Your task to perform on an android device: check google app version Image 0: 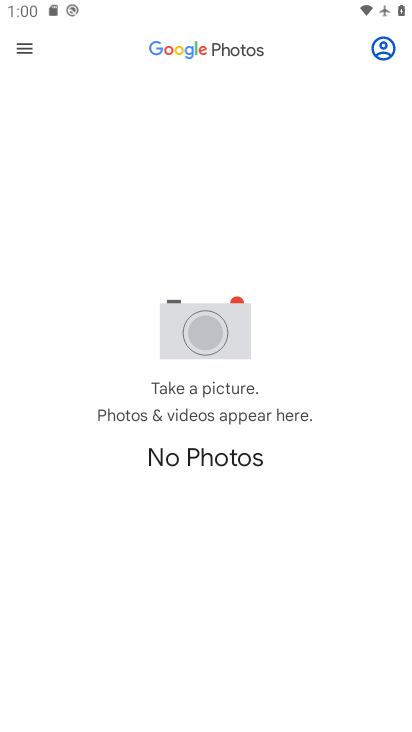
Step 0: press back button
Your task to perform on an android device: check google app version Image 1: 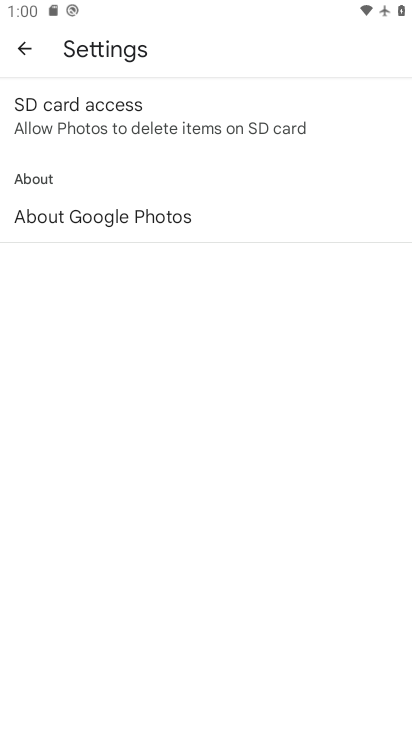
Step 1: click (23, 55)
Your task to perform on an android device: check google app version Image 2: 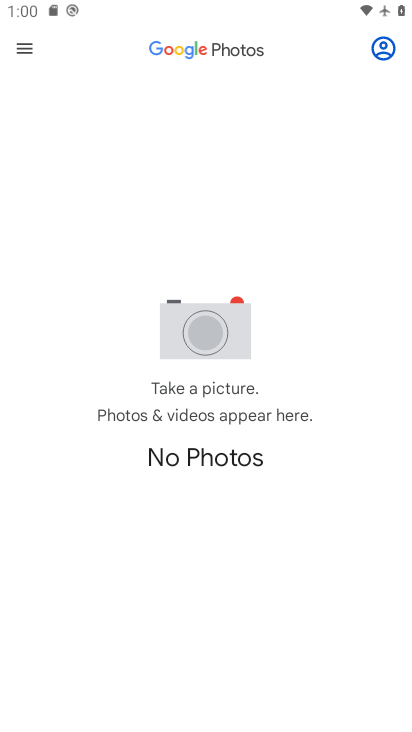
Step 2: press home button
Your task to perform on an android device: check google app version Image 3: 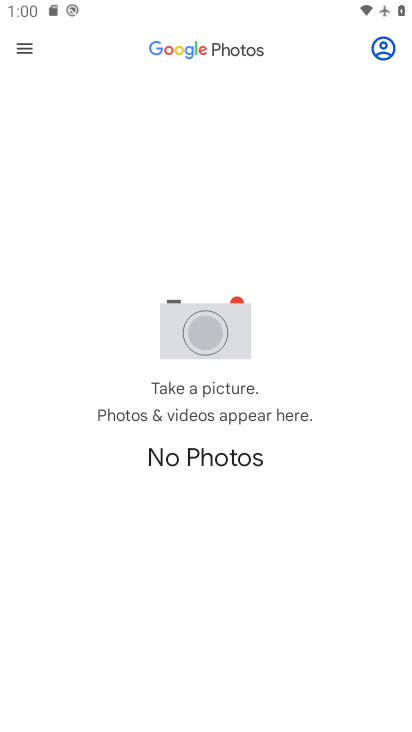
Step 3: press home button
Your task to perform on an android device: check google app version Image 4: 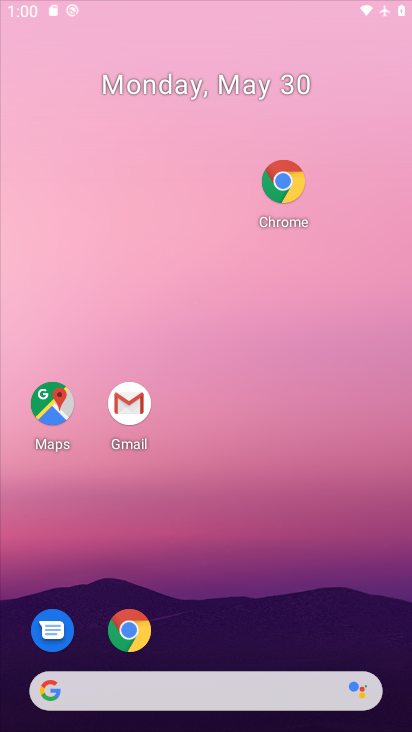
Step 4: press home button
Your task to perform on an android device: check google app version Image 5: 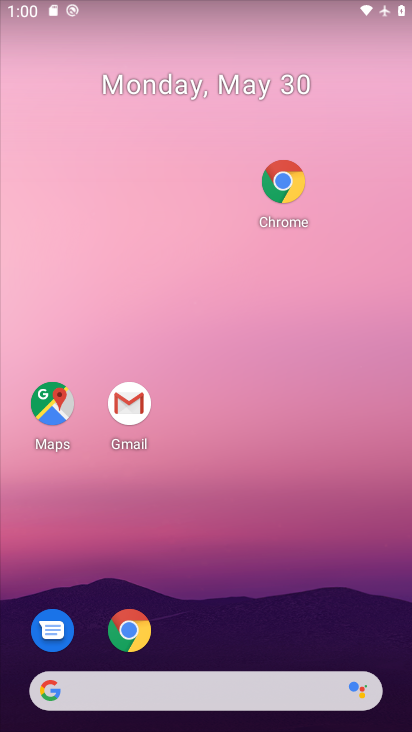
Step 5: drag from (231, 615) to (130, 25)
Your task to perform on an android device: check google app version Image 6: 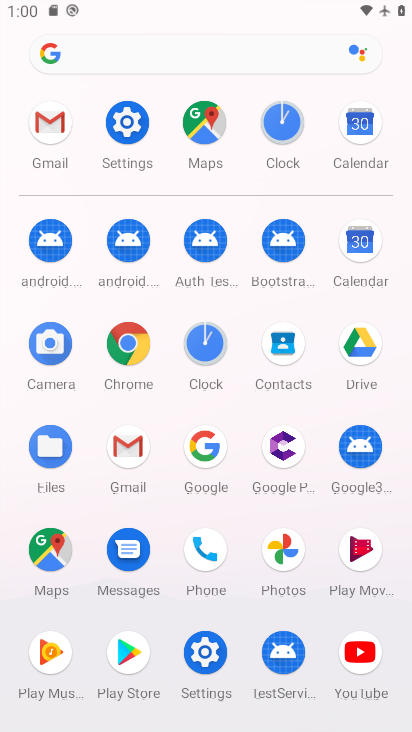
Step 6: drag from (231, 598) to (62, 24)
Your task to perform on an android device: check google app version Image 7: 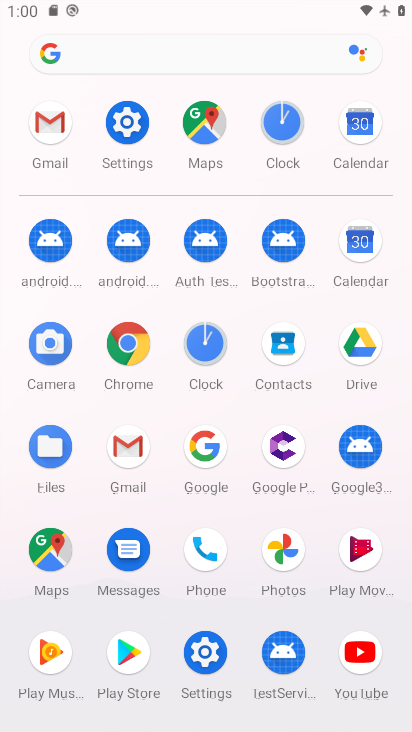
Step 7: click (200, 460)
Your task to perform on an android device: check google app version Image 8: 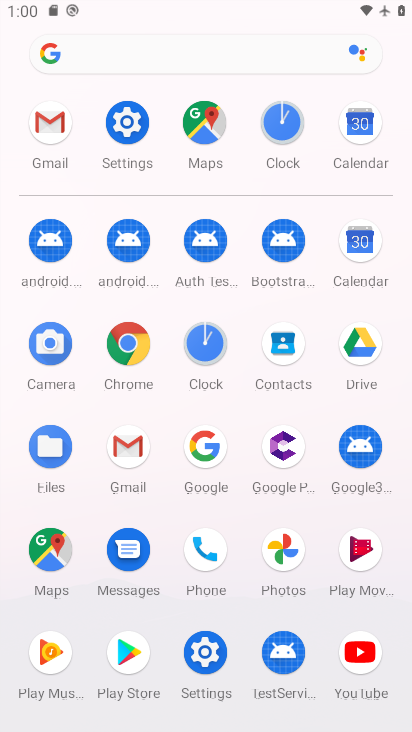
Step 8: click (204, 447)
Your task to perform on an android device: check google app version Image 9: 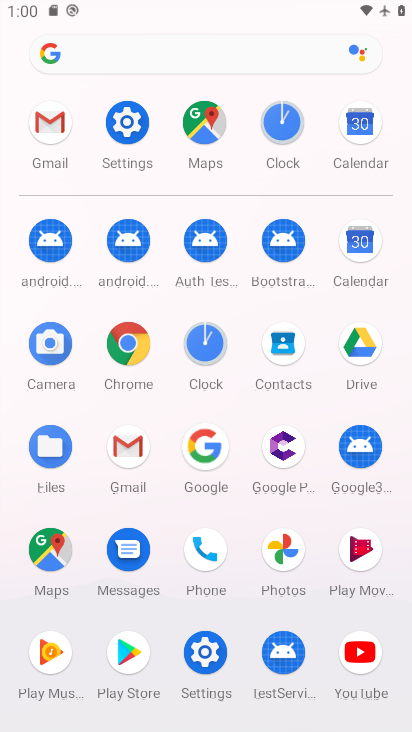
Step 9: click (204, 447)
Your task to perform on an android device: check google app version Image 10: 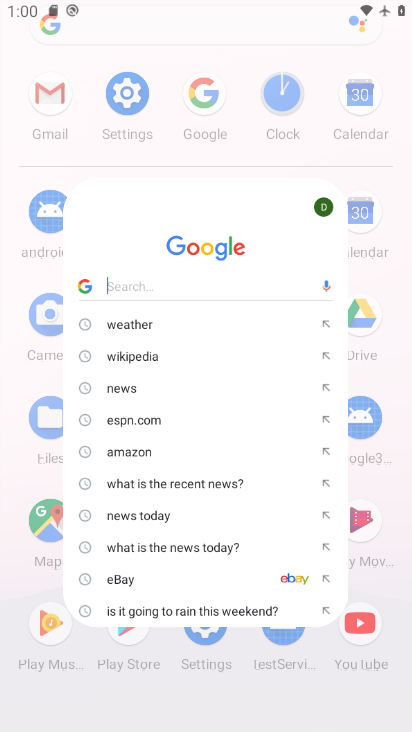
Step 10: click (204, 447)
Your task to perform on an android device: check google app version Image 11: 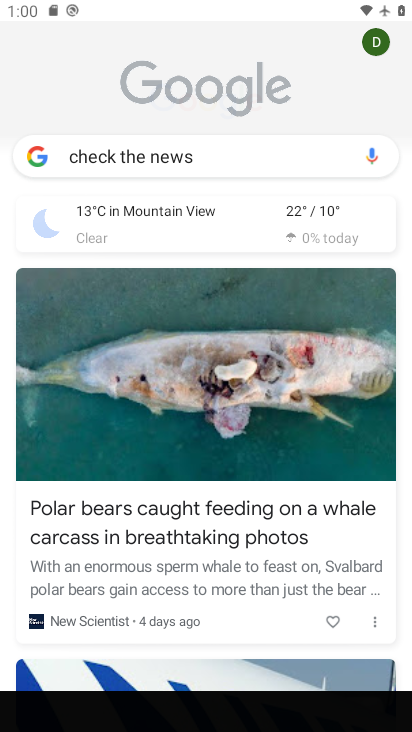
Step 11: click (204, 447)
Your task to perform on an android device: check google app version Image 12: 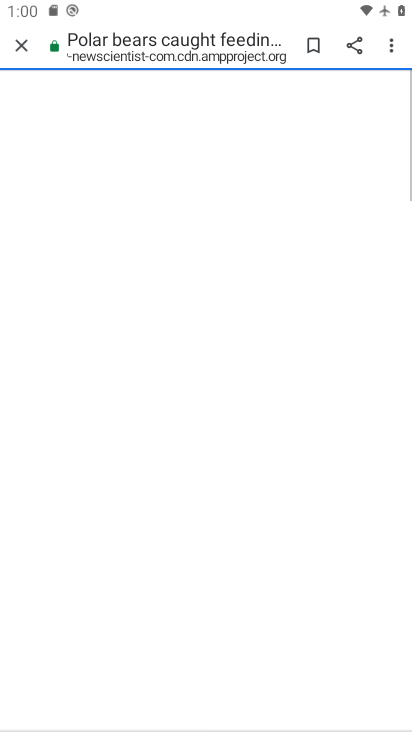
Step 12: press home button
Your task to perform on an android device: check google app version Image 13: 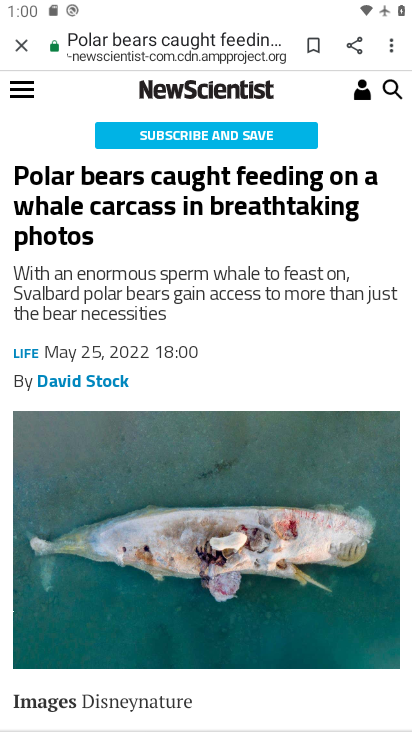
Step 13: press home button
Your task to perform on an android device: check google app version Image 14: 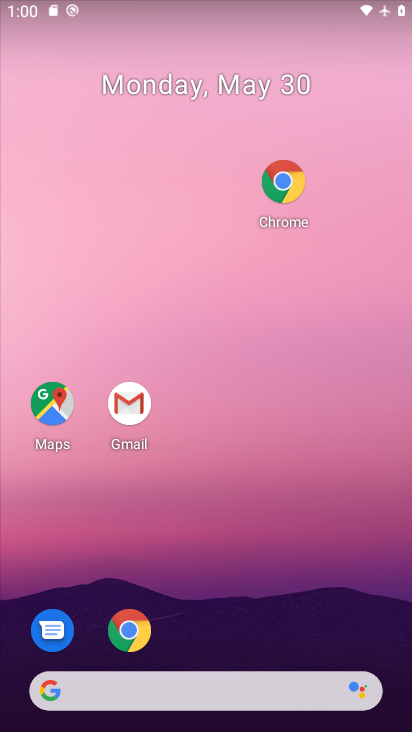
Step 14: press back button
Your task to perform on an android device: check google app version Image 15: 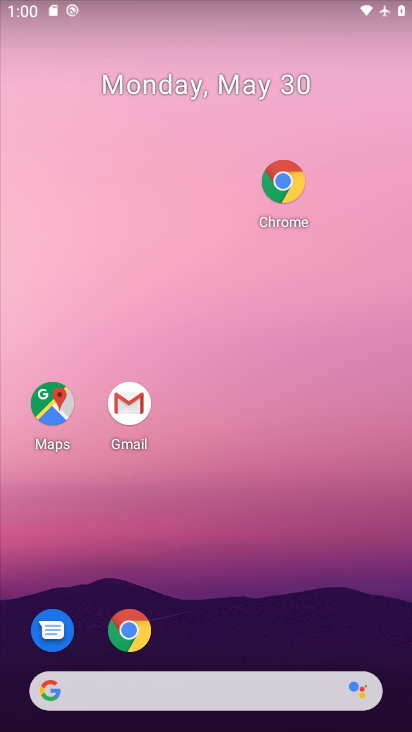
Step 15: press home button
Your task to perform on an android device: check google app version Image 16: 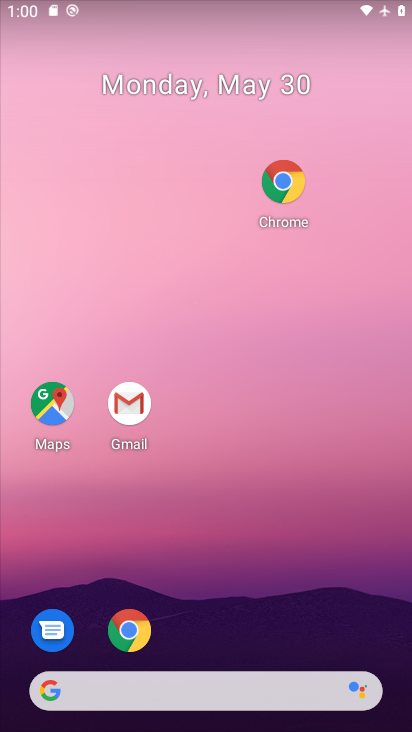
Step 16: press back button
Your task to perform on an android device: check google app version Image 17: 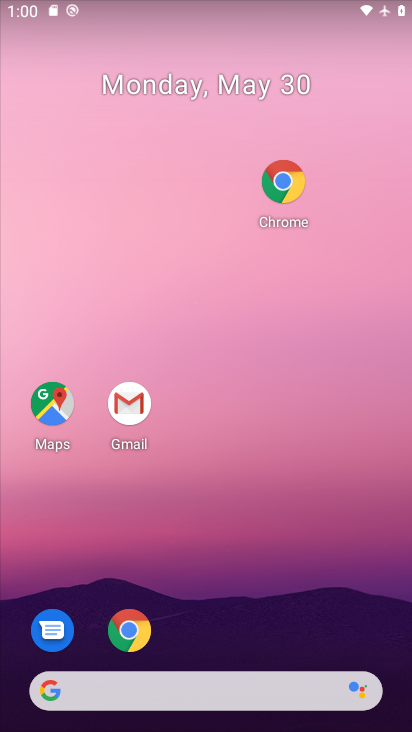
Step 17: press back button
Your task to perform on an android device: check google app version Image 18: 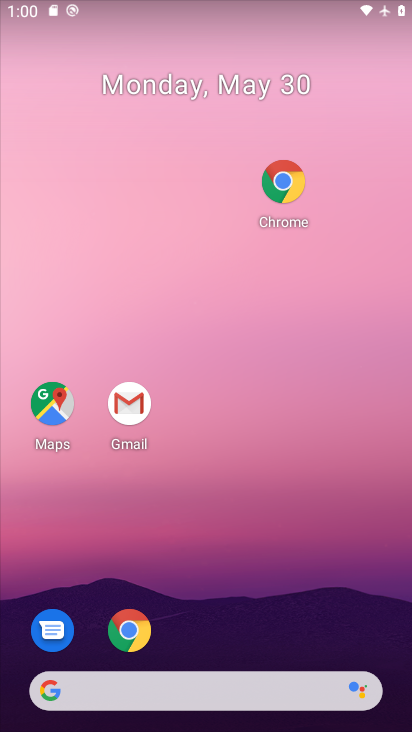
Step 18: click (70, 49)
Your task to perform on an android device: check google app version Image 19: 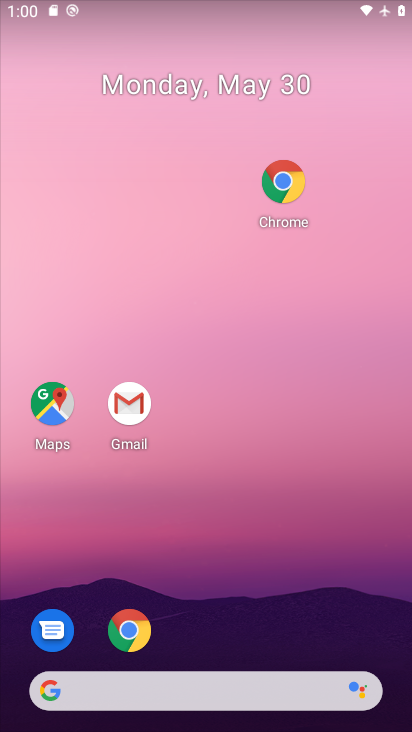
Step 19: drag from (162, 435) to (177, 26)
Your task to perform on an android device: check google app version Image 20: 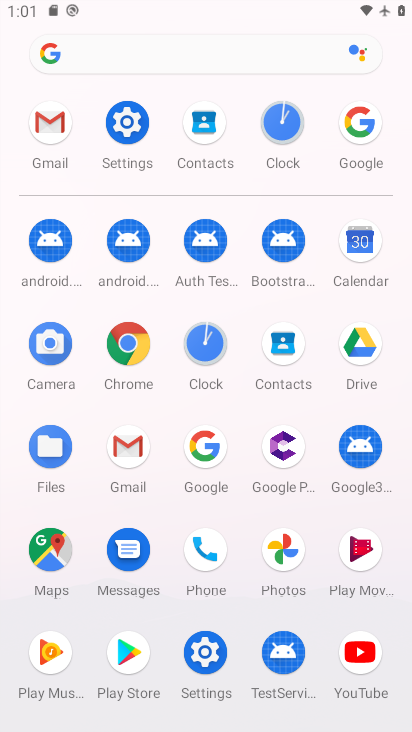
Step 20: drag from (167, 9) to (205, 8)
Your task to perform on an android device: check google app version Image 21: 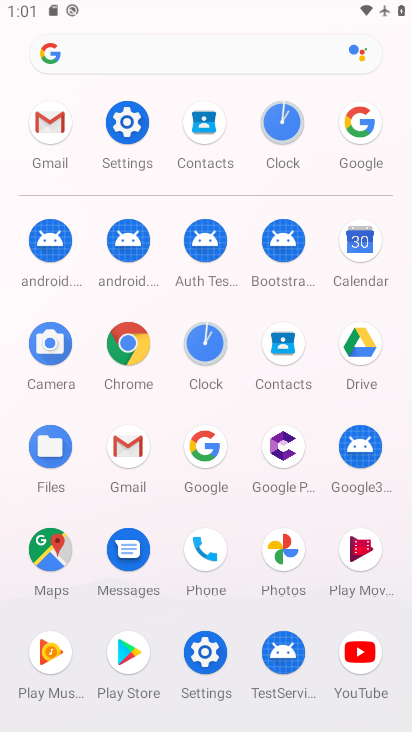
Step 21: drag from (196, 6) to (82, 11)
Your task to perform on an android device: check google app version Image 22: 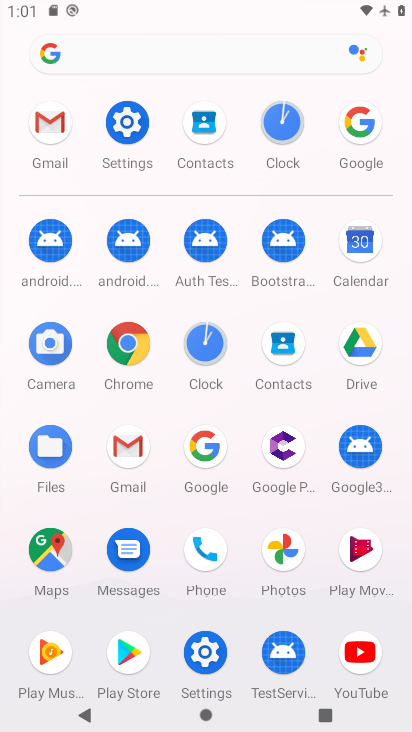
Step 22: click (171, 31)
Your task to perform on an android device: check google app version Image 23: 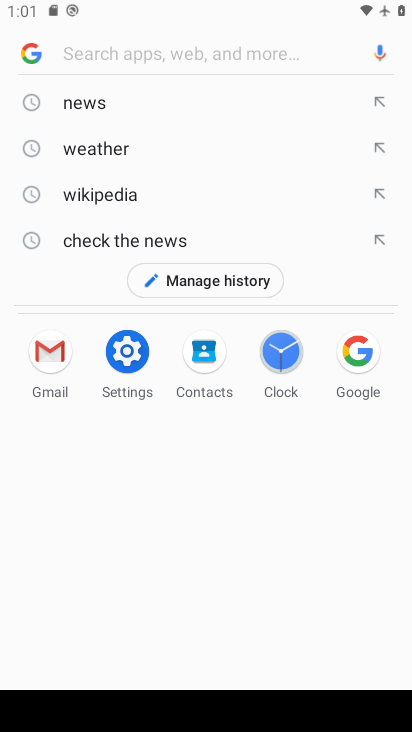
Step 23: click (316, 562)
Your task to perform on an android device: check google app version Image 24: 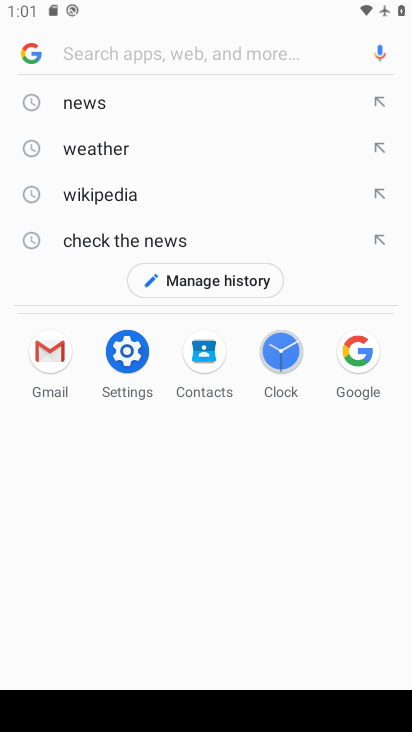
Step 24: click (205, 448)
Your task to perform on an android device: check google app version Image 25: 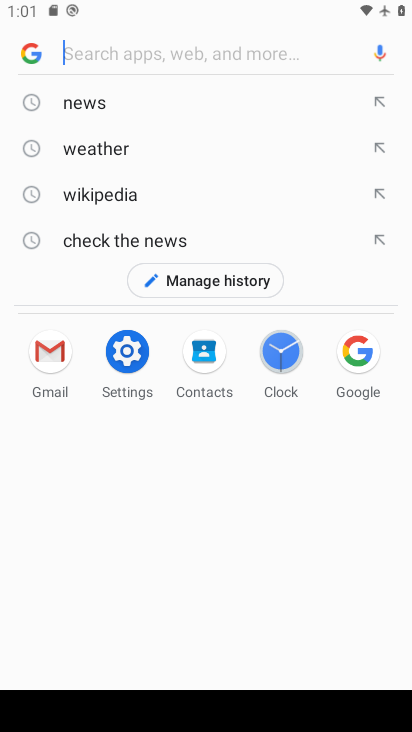
Step 25: click (205, 449)
Your task to perform on an android device: check google app version Image 26: 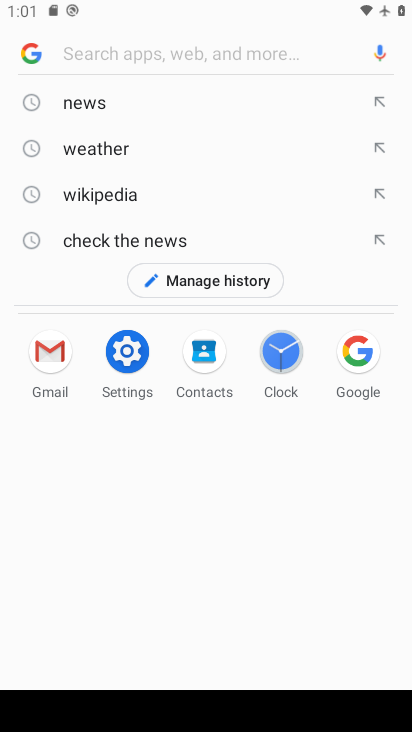
Step 26: click (205, 449)
Your task to perform on an android device: check google app version Image 27: 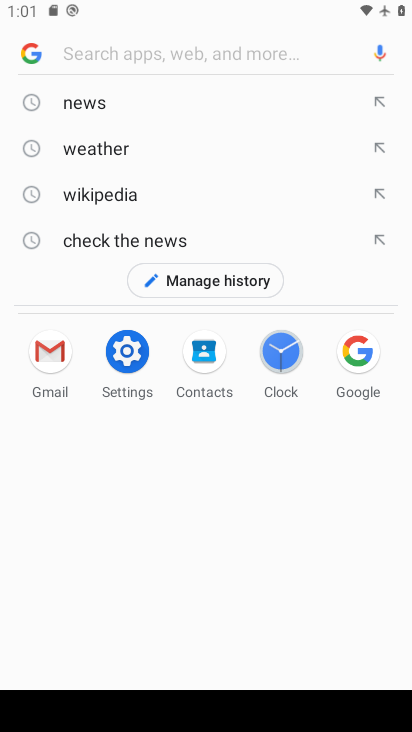
Step 27: click (371, 355)
Your task to perform on an android device: check google app version Image 28: 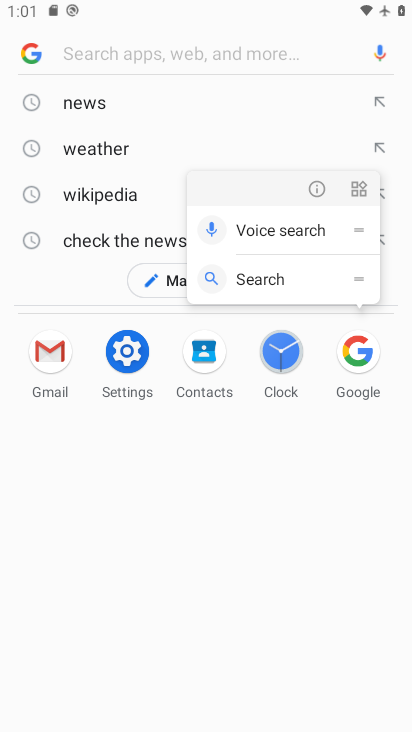
Step 28: click (364, 363)
Your task to perform on an android device: check google app version Image 29: 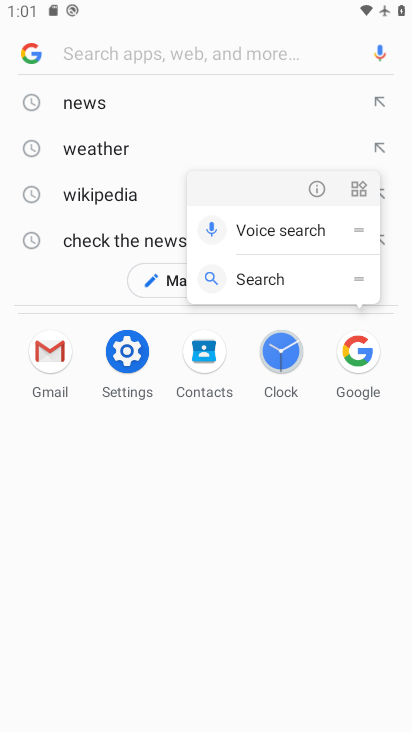
Step 29: click (364, 363)
Your task to perform on an android device: check google app version Image 30: 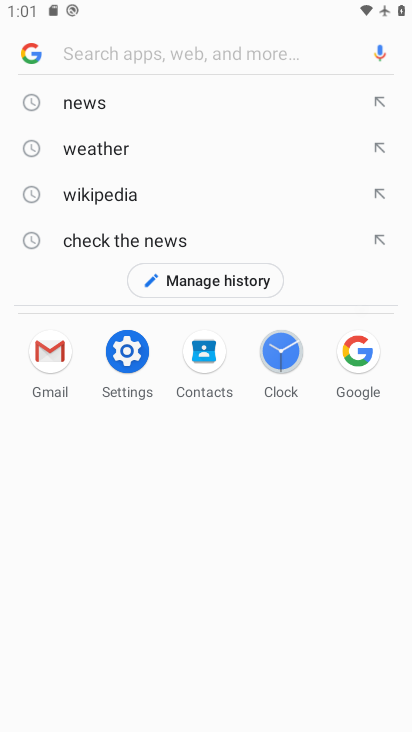
Step 30: click (364, 363)
Your task to perform on an android device: check google app version Image 31: 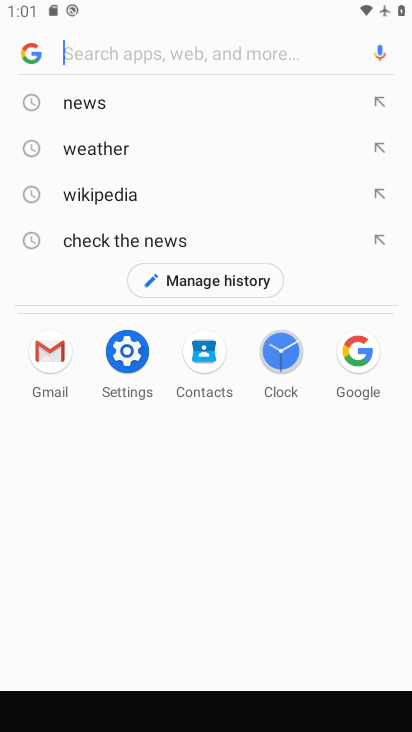
Step 31: click (364, 363)
Your task to perform on an android device: check google app version Image 32: 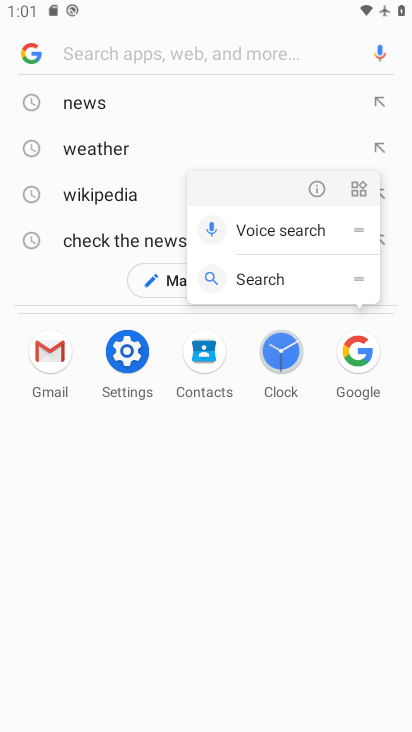
Step 32: click (361, 363)
Your task to perform on an android device: check google app version Image 33: 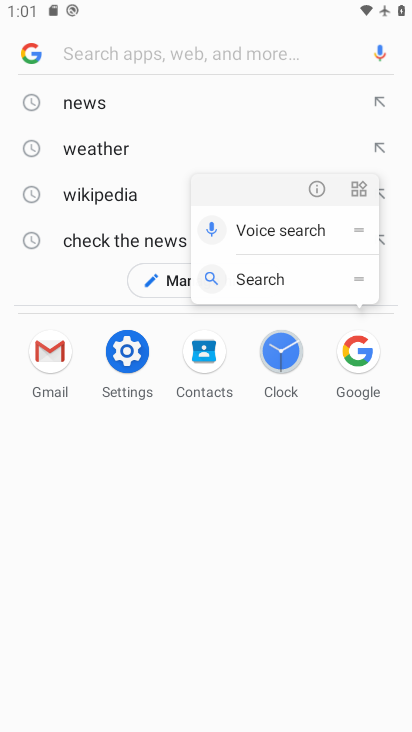
Step 33: click (361, 363)
Your task to perform on an android device: check google app version Image 34: 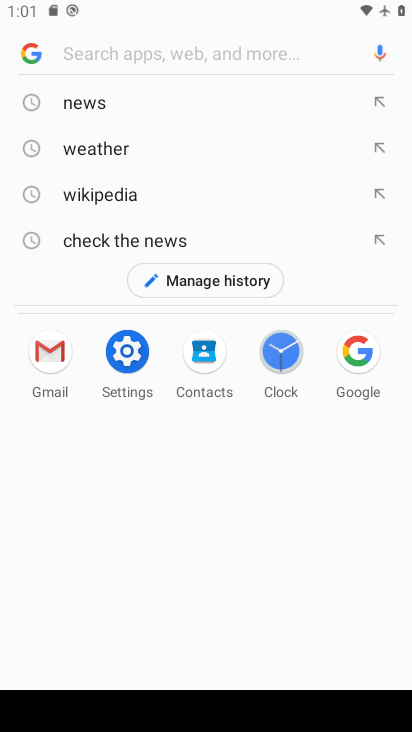
Step 34: click (360, 364)
Your task to perform on an android device: check google app version Image 35: 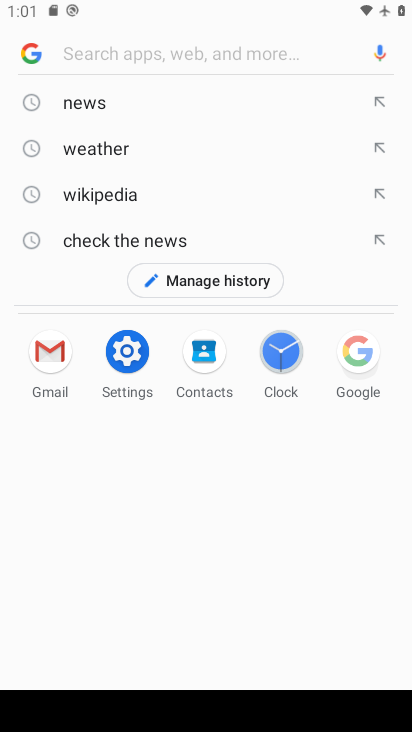
Step 35: click (354, 368)
Your task to perform on an android device: check google app version Image 36: 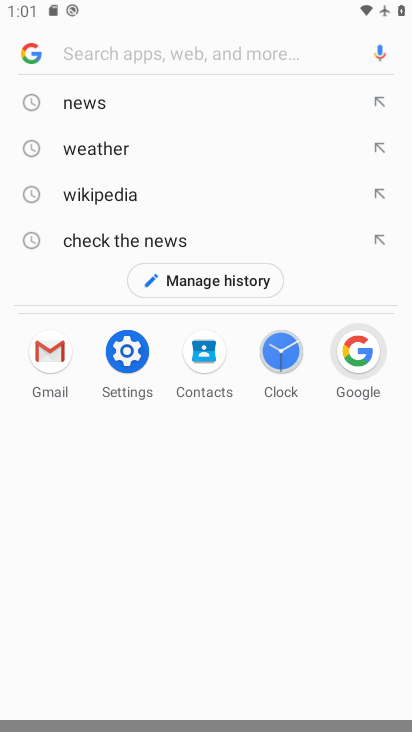
Step 36: click (354, 368)
Your task to perform on an android device: check google app version Image 37: 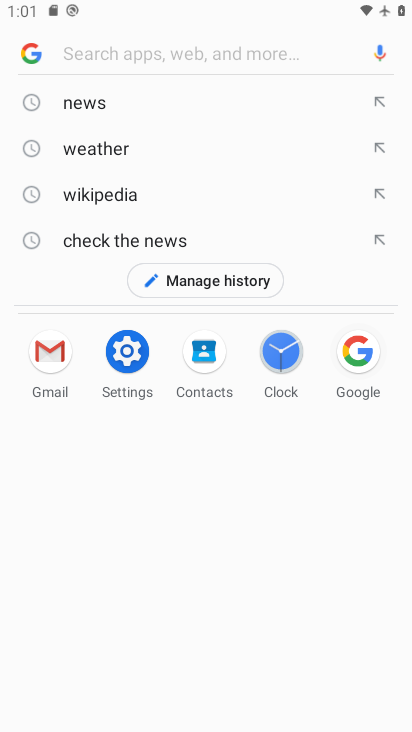
Step 37: click (354, 368)
Your task to perform on an android device: check google app version Image 38: 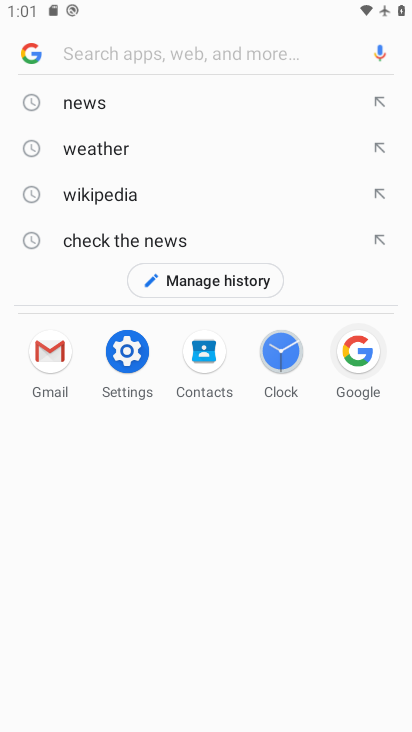
Step 38: click (354, 364)
Your task to perform on an android device: check google app version Image 39: 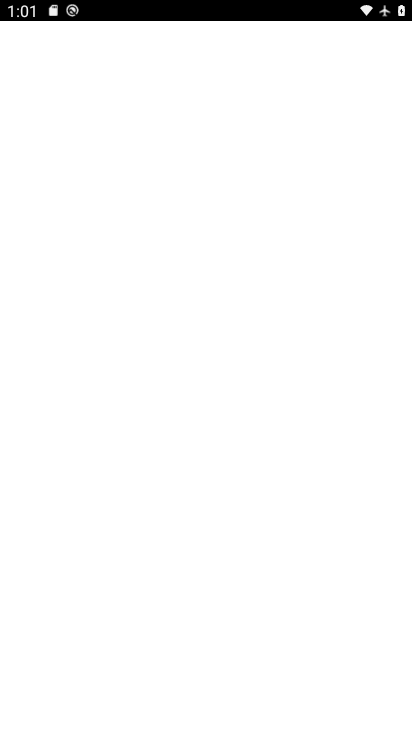
Step 39: click (352, 364)
Your task to perform on an android device: check google app version Image 40: 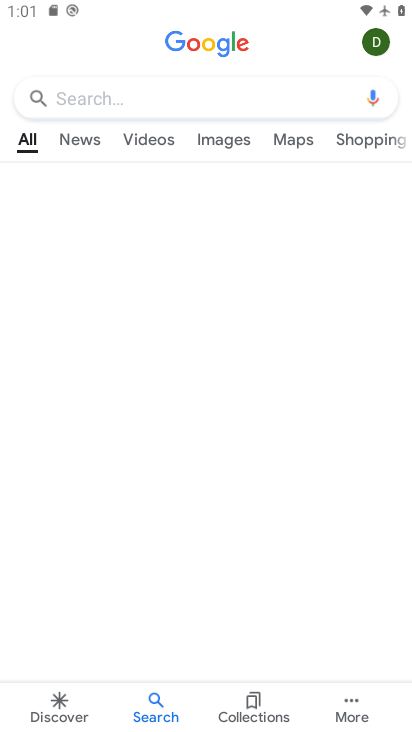
Step 40: click (352, 364)
Your task to perform on an android device: check google app version Image 41: 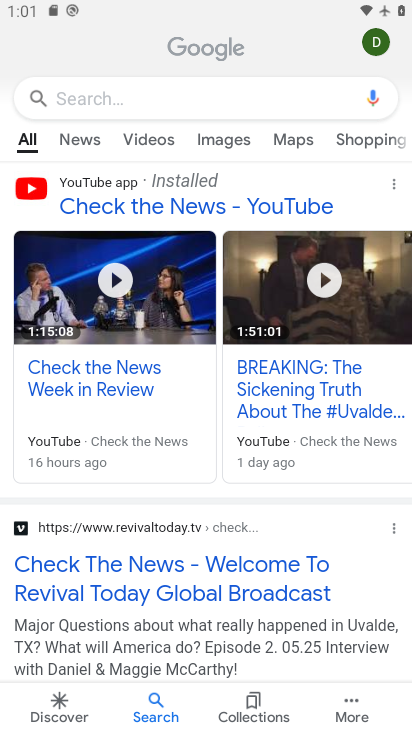
Step 41: click (346, 708)
Your task to perform on an android device: check google app version Image 42: 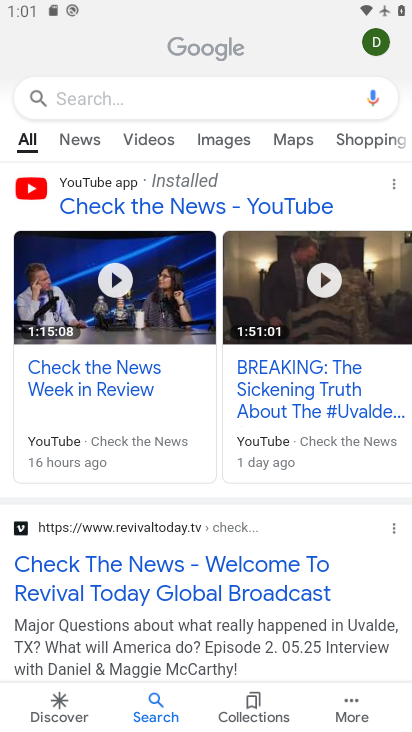
Step 42: click (346, 708)
Your task to perform on an android device: check google app version Image 43: 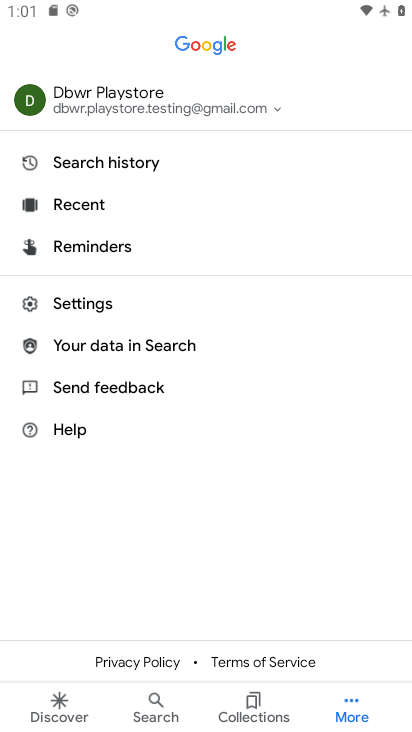
Step 43: click (346, 708)
Your task to perform on an android device: check google app version Image 44: 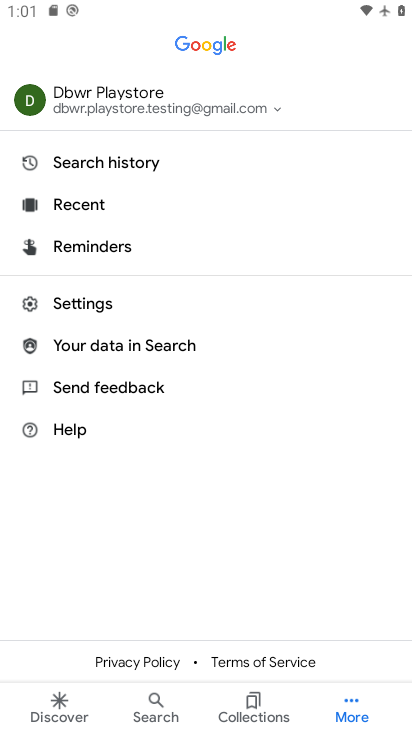
Step 44: click (349, 703)
Your task to perform on an android device: check google app version Image 45: 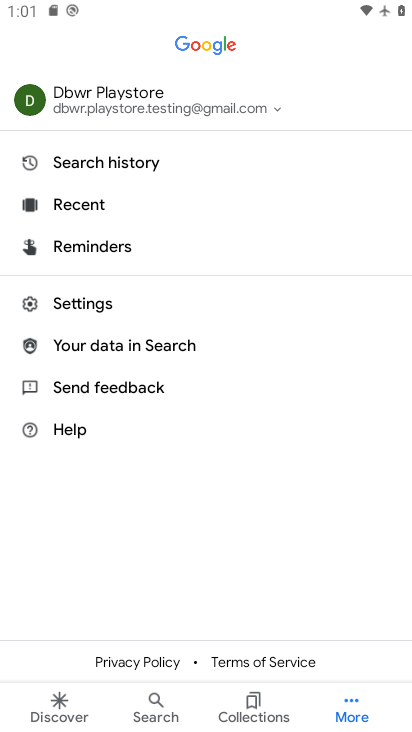
Step 45: click (349, 702)
Your task to perform on an android device: check google app version Image 46: 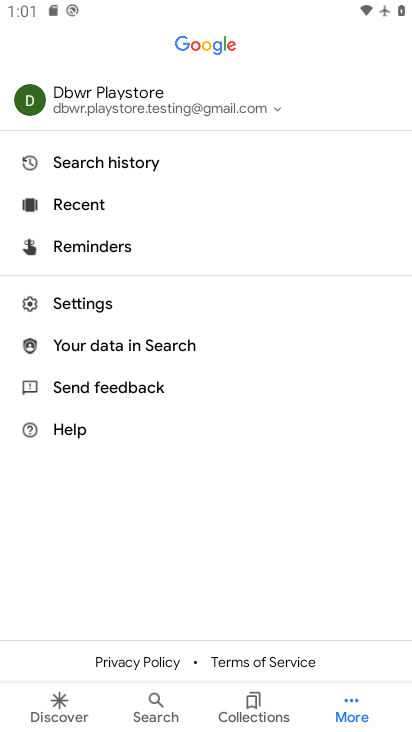
Step 46: click (85, 294)
Your task to perform on an android device: check google app version Image 47: 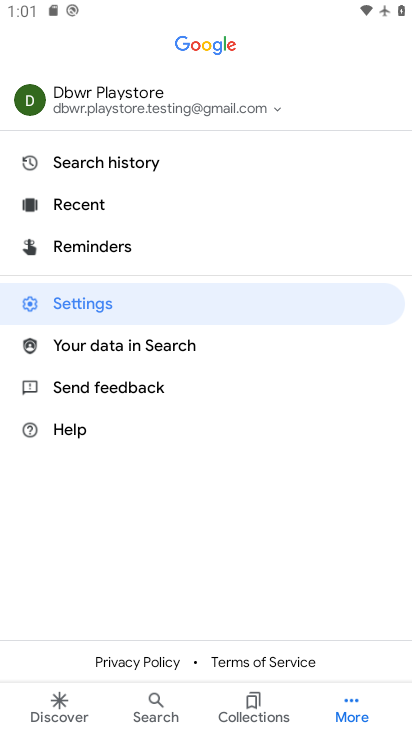
Step 47: click (90, 293)
Your task to perform on an android device: check google app version Image 48: 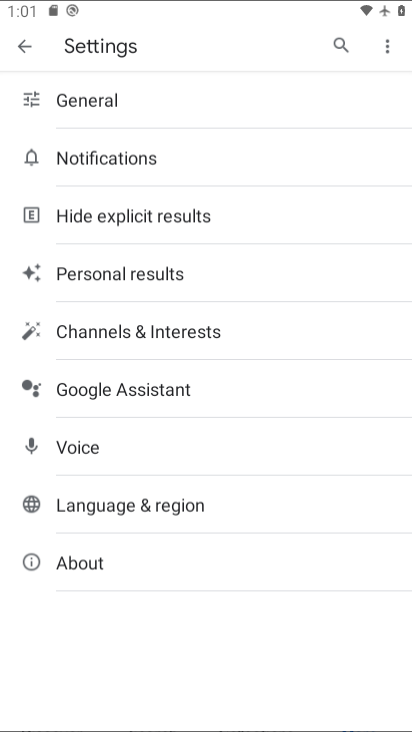
Step 48: click (91, 294)
Your task to perform on an android device: check google app version Image 49: 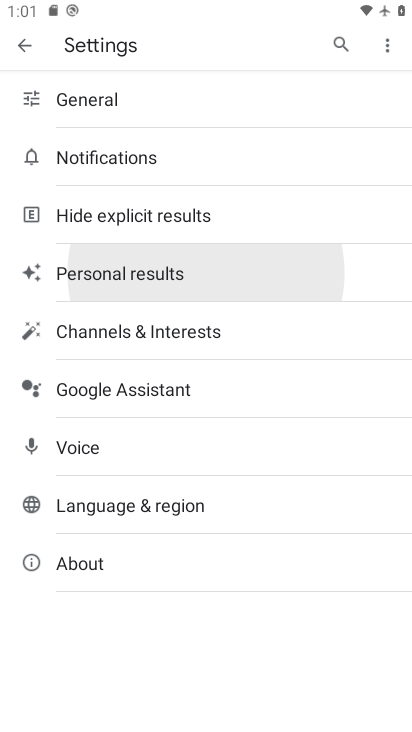
Step 49: click (92, 304)
Your task to perform on an android device: check google app version Image 50: 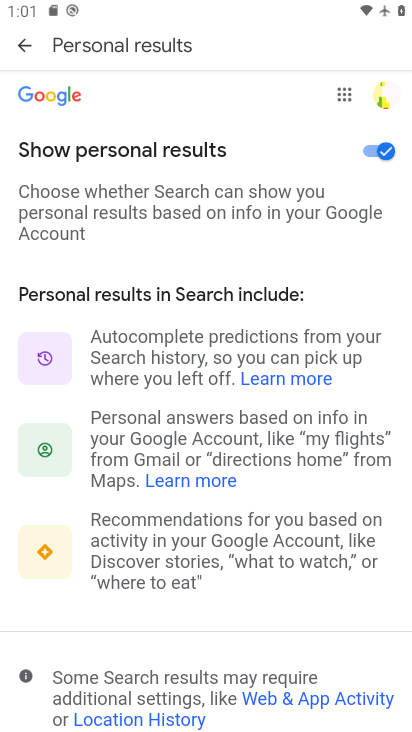
Step 50: click (23, 49)
Your task to perform on an android device: check google app version Image 51: 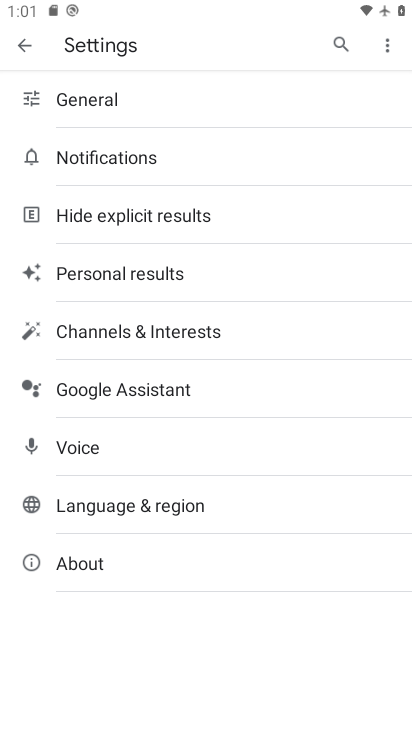
Step 51: click (74, 573)
Your task to perform on an android device: check google app version Image 52: 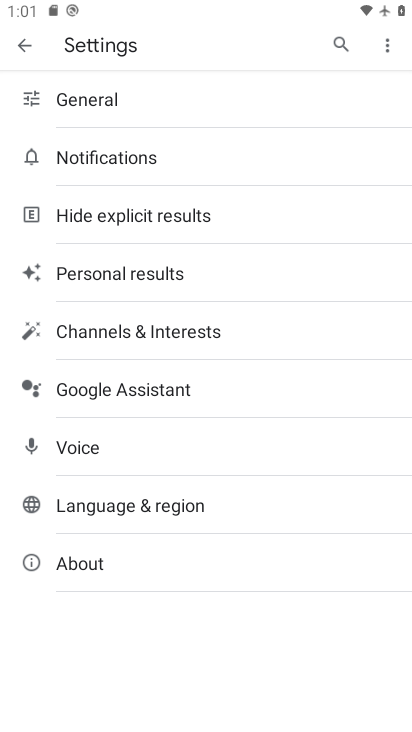
Step 52: click (76, 573)
Your task to perform on an android device: check google app version Image 53: 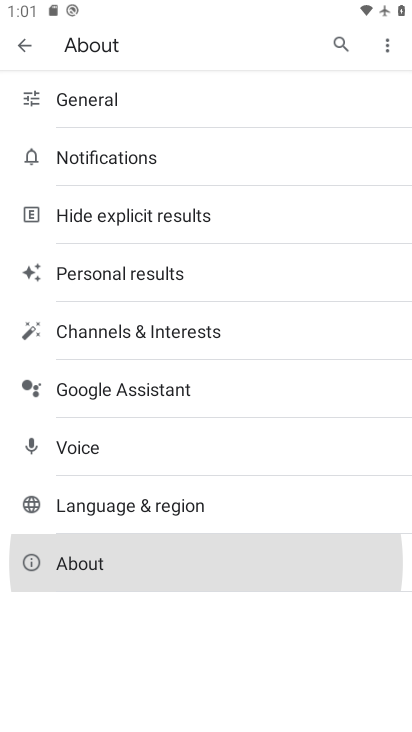
Step 53: click (81, 570)
Your task to perform on an android device: check google app version Image 54: 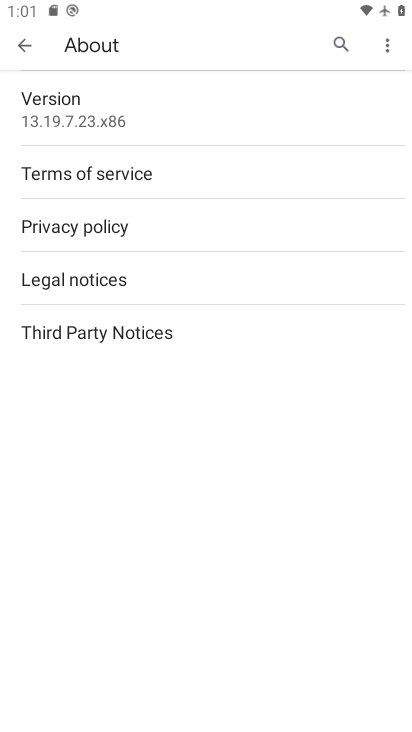
Step 54: click (83, 568)
Your task to perform on an android device: check google app version Image 55: 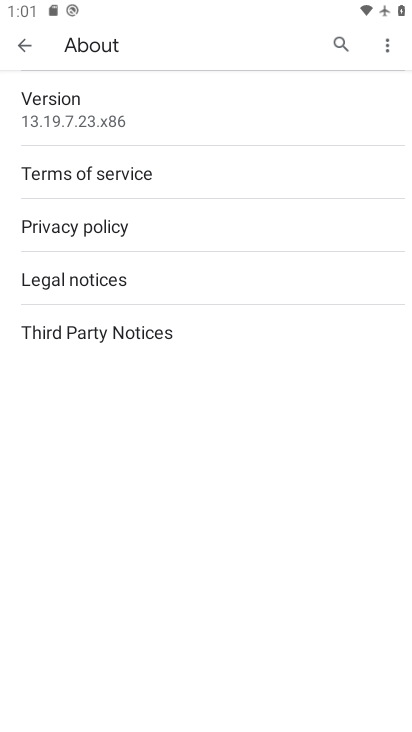
Step 55: click (84, 567)
Your task to perform on an android device: check google app version Image 56: 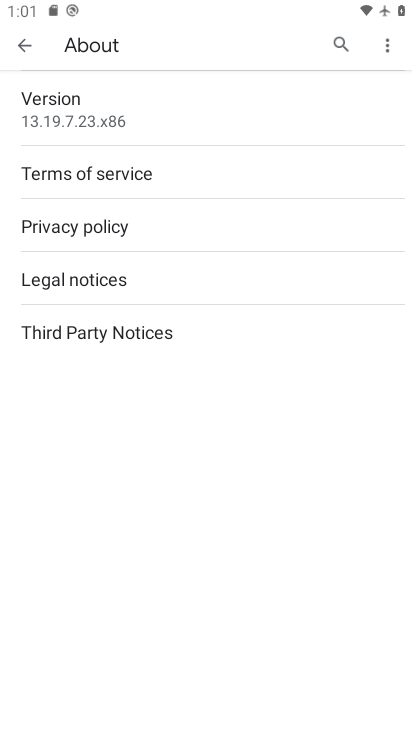
Step 56: click (89, 561)
Your task to perform on an android device: check google app version Image 57: 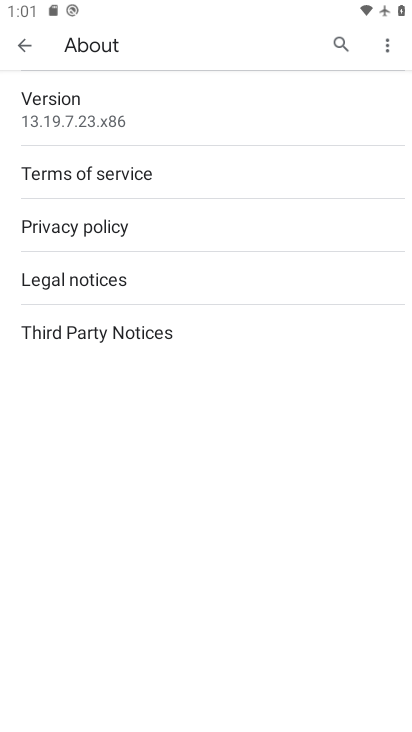
Step 57: click (91, 560)
Your task to perform on an android device: check google app version Image 58: 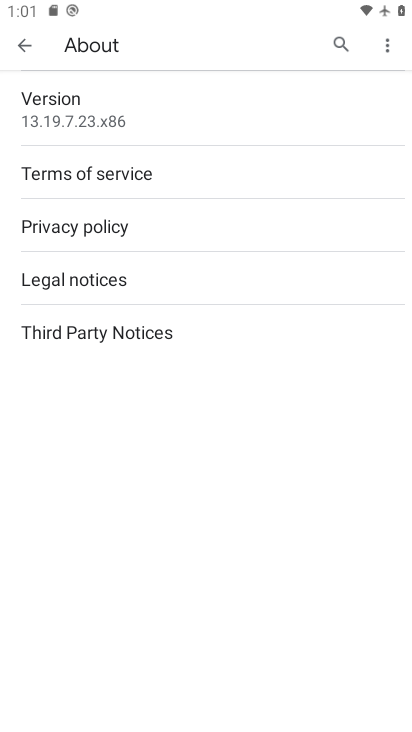
Step 58: task complete